Your task to perform on an android device: Open Google Maps Image 0: 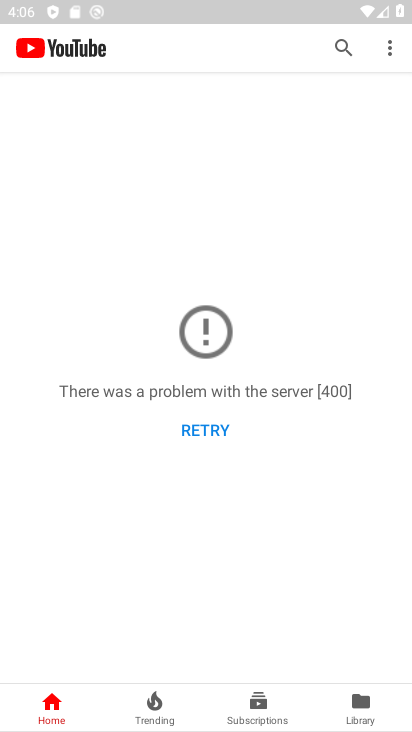
Step 0: press back button
Your task to perform on an android device: Open Google Maps Image 1: 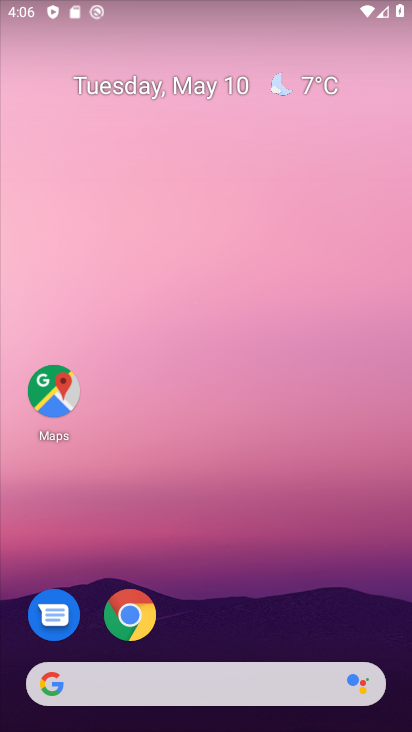
Step 1: drag from (201, 595) to (56, 1)
Your task to perform on an android device: Open Google Maps Image 2: 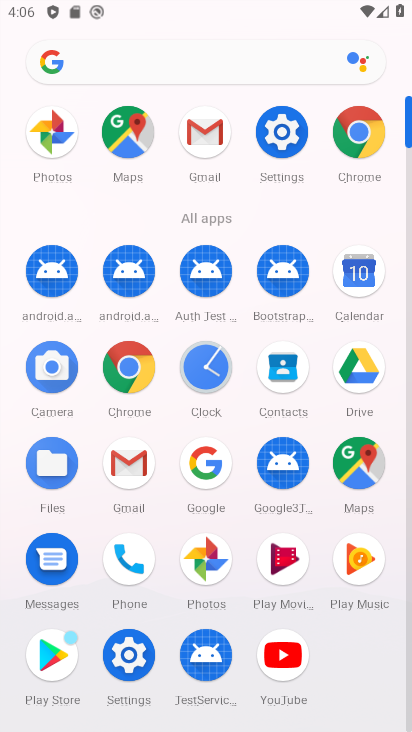
Step 2: drag from (5, 576) to (30, 258)
Your task to perform on an android device: Open Google Maps Image 3: 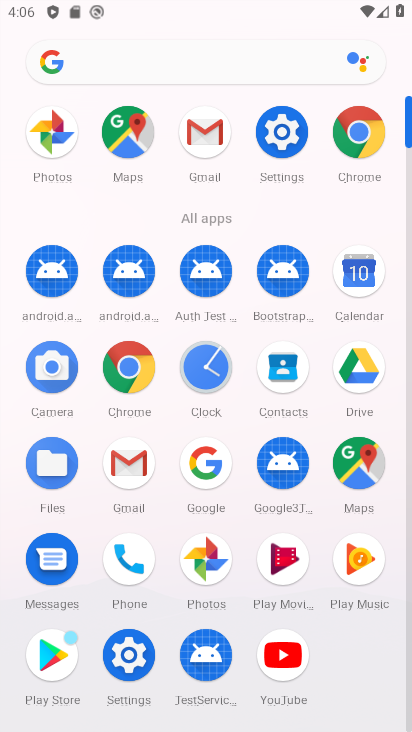
Step 3: click (356, 455)
Your task to perform on an android device: Open Google Maps Image 4: 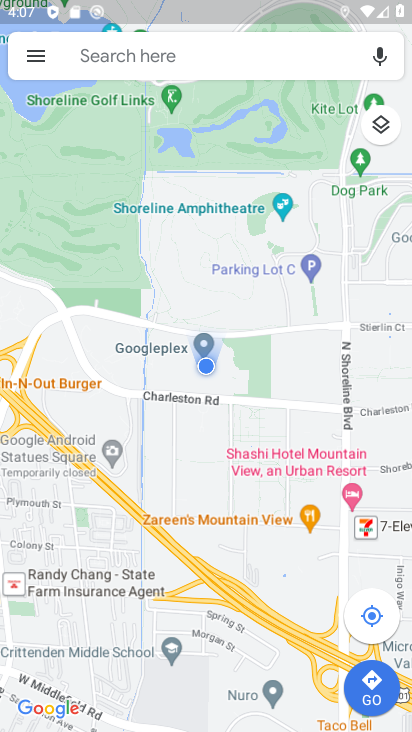
Step 4: task complete